Your task to perform on an android device: Open Reddit.com Image 0: 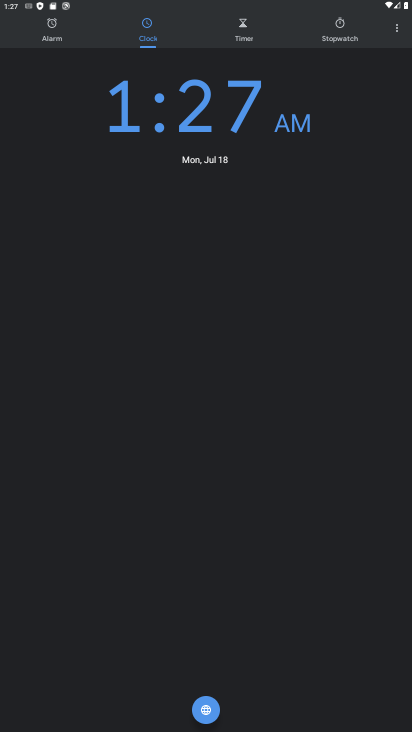
Step 0: press home button
Your task to perform on an android device: Open Reddit.com Image 1: 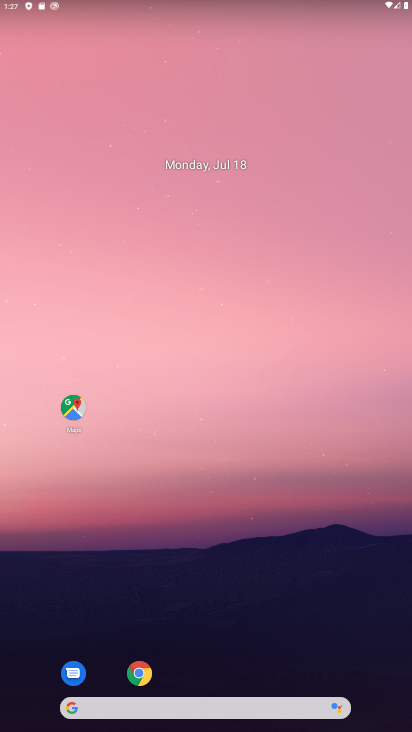
Step 1: click (150, 676)
Your task to perform on an android device: Open Reddit.com Image 2: 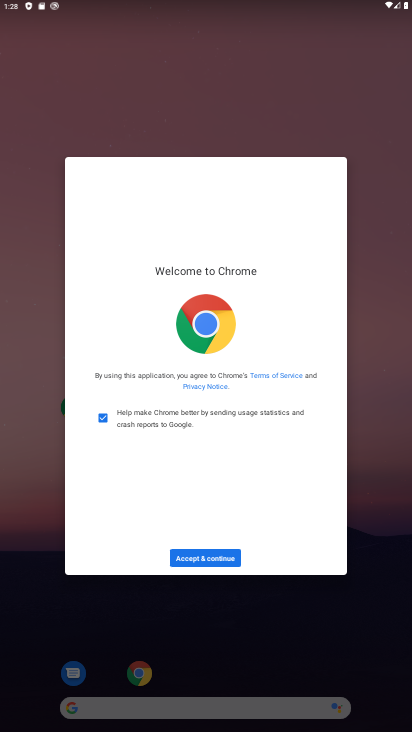
Step 2: click (204, 554)
Your task to perform on an android device: Open Reddit.com Image 3: 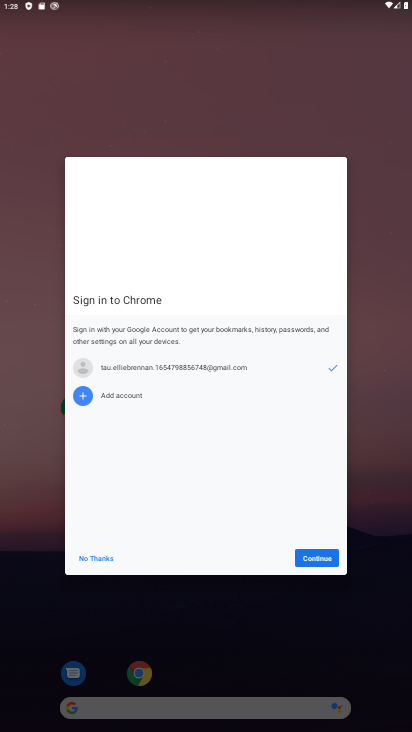
Step 3: click (309, 556)
Your task to perform on an android device: Open Reddit.com Image 4: 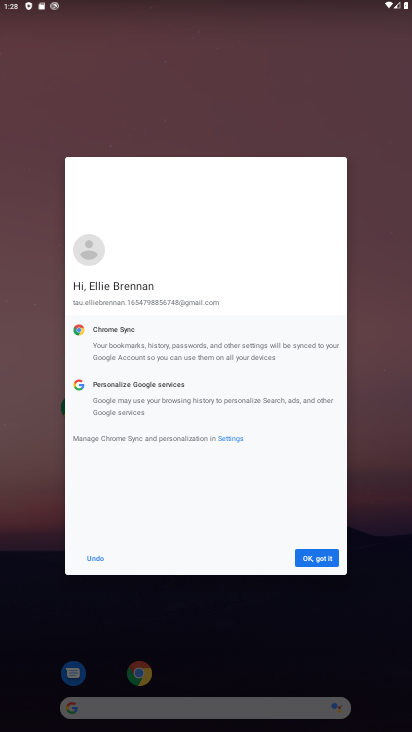
Step 4: click (309, 560)
Your task to perform on an android device: Open Reddit.com Image 5: 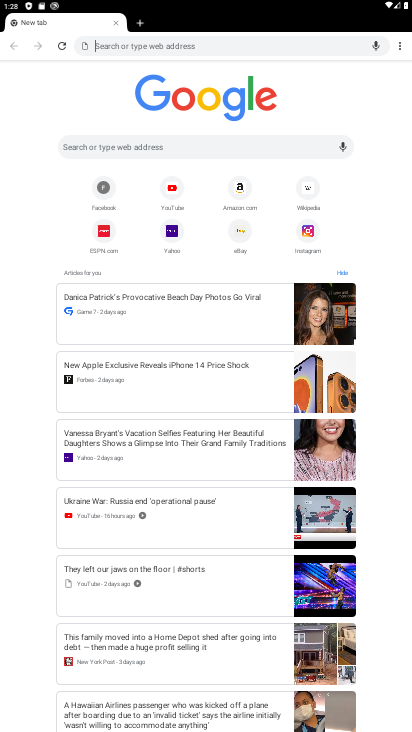
Step 5: click (169, 146)
Your task to perform on an android device: Open Reddit.com Image 6: 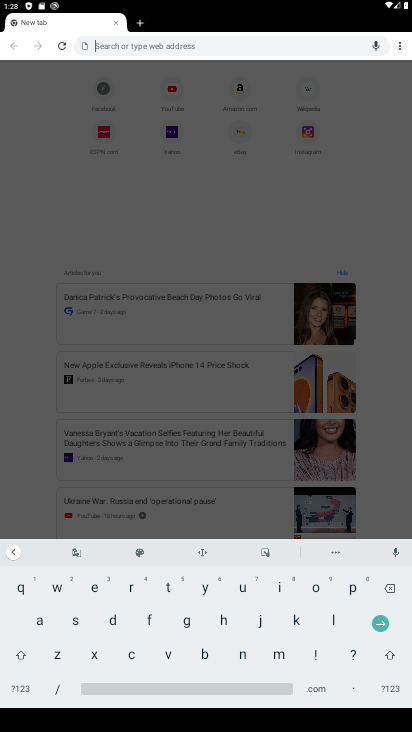
Step 6: click (128, 584)
Your task to perform on an android device: Open Reddit.com Image 7: 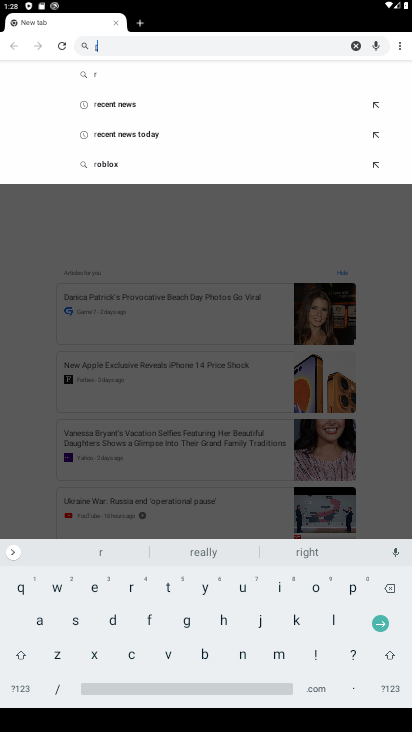
Step 7: click (97, 586)
Your task to perform on an android device: Open Reddit.com Image 8: 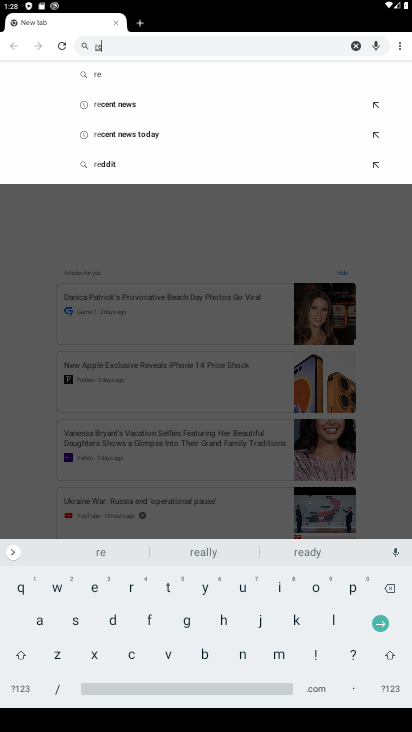
Step 8: click (111, 624)
Your task to perform on an android device: Open Reddit.com Image 9: 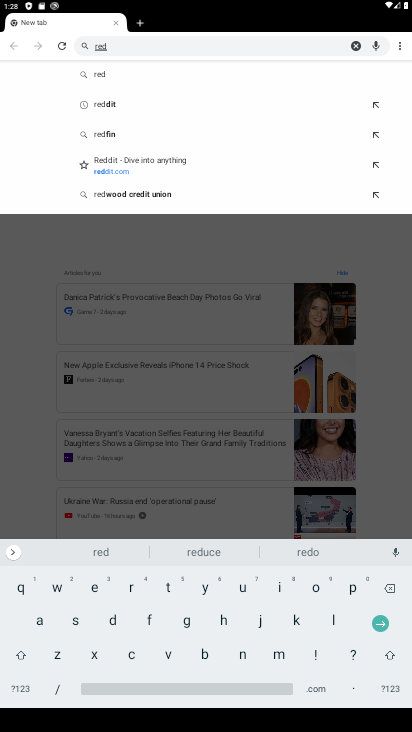
Step 9: click (117, 108)
Your task to perform on an android device: Open Reddit.com Image 10: 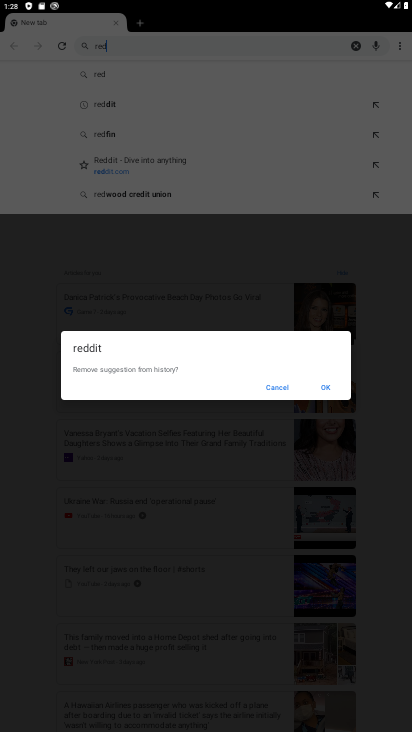
Step 10: click (276, 388)
Your task to perform on an android device: Open Reddit.com Image 11: 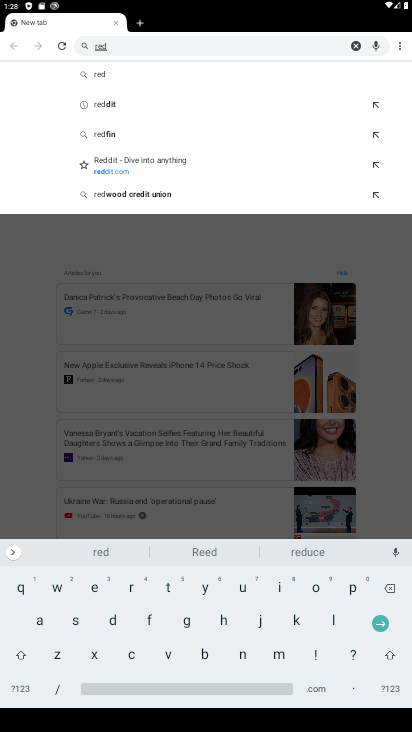
Step 11: click (122, 110)
Your task to perform on an android device: Open Reddit.com Image 12: 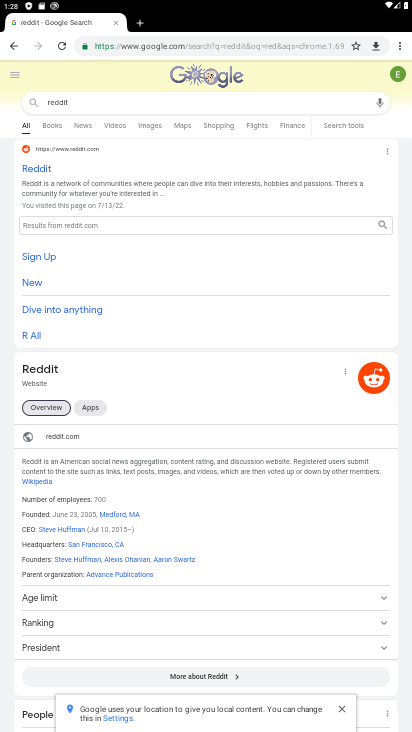
Step 12: click (42, 173)
Your task to perform on an android device: Open Reddit.com Image 13: 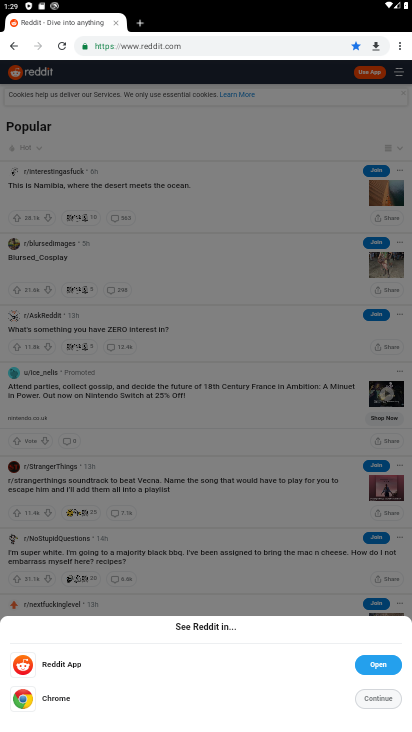
Step 13: click (389, 693)
Your task to perform on an android device: Open Reddit.com Image 14: 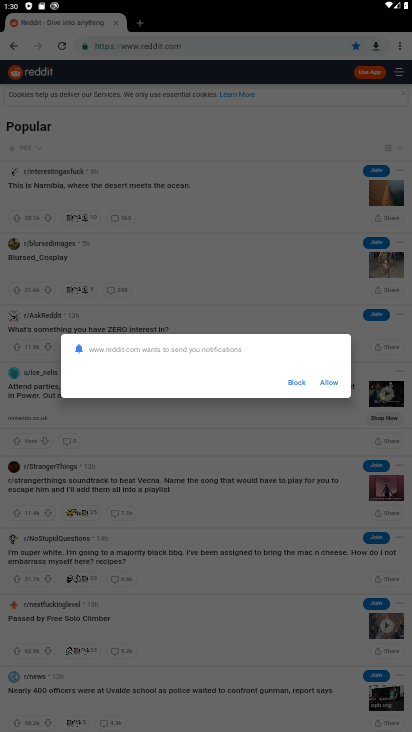
Step 14: click (294, 378)
Your task to perform on an android device: Open Reddit.com Image 15: 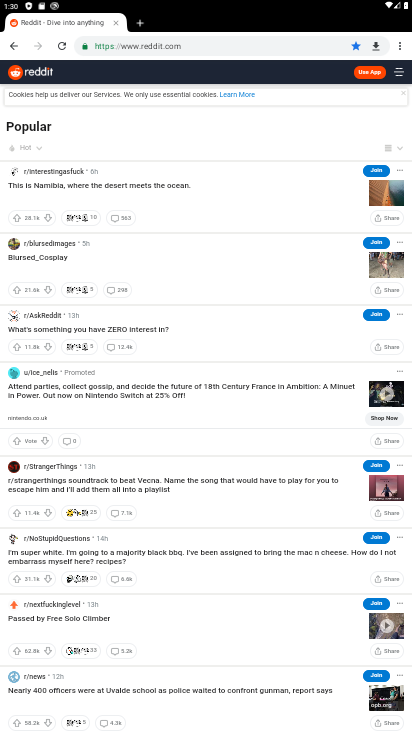
Step 15: task complete